Your task to perform on an android device: Open Chrome and go to settings Image 0: 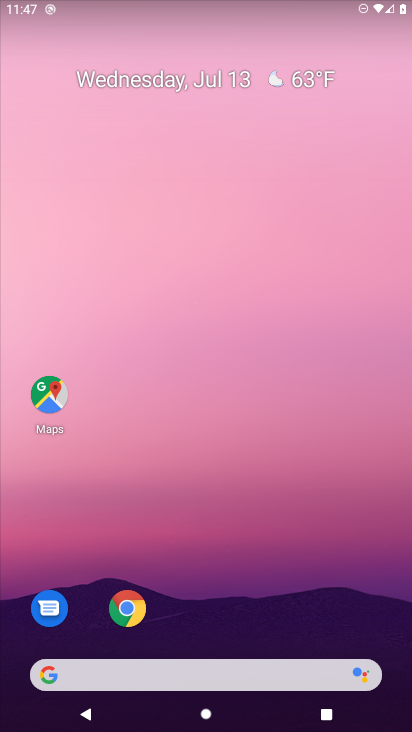
Step 0: press home button
Your task to perform on an android device: Open Chrome and go to settings Image 1: 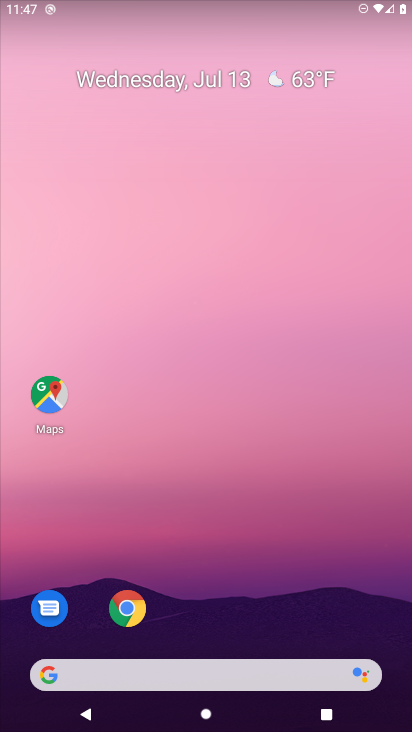
Step 1: press home button
Your task to perform on an android device: Open Chrome and go to settings Image 2: 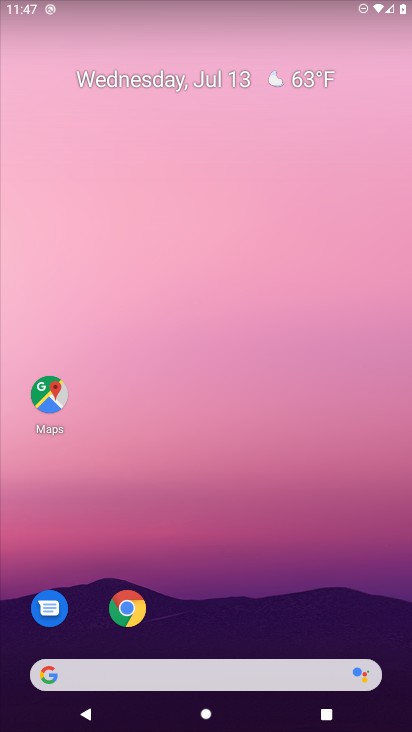
Step 2: drag from (254, 624) to (231, 119)
Your task to perform on an android device: Open Chrome and go to settings Image 3: 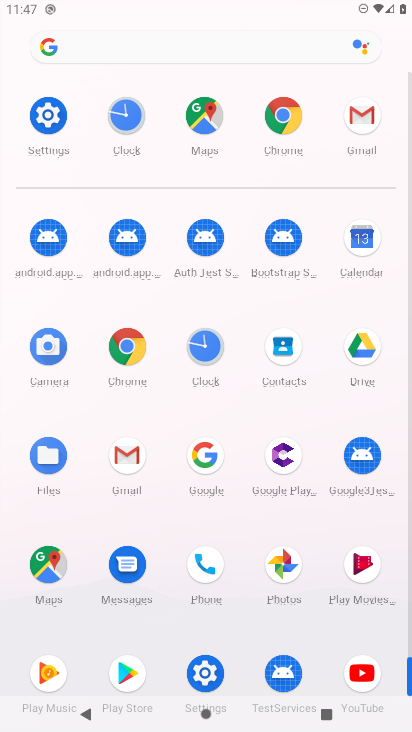
Step 3: click (283, 121)
Your task to perform on an android device: Open Chrome and go to settings Image 4: 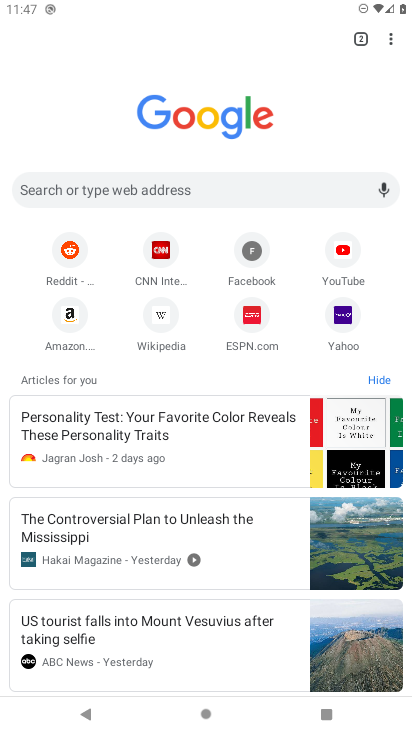
Step 4: task complete